Your task to perform on an android device: Open calendar and show me the third week of next month Image 0: 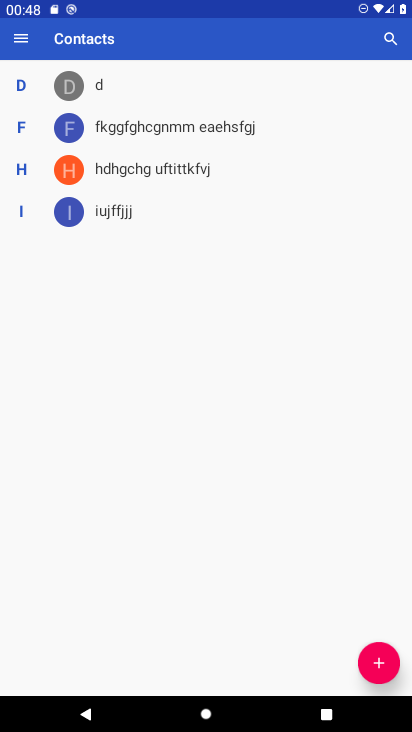
Step 0: press home button
Your task to perform on an android device: Open calendar and show me the third week of next month Image 1: 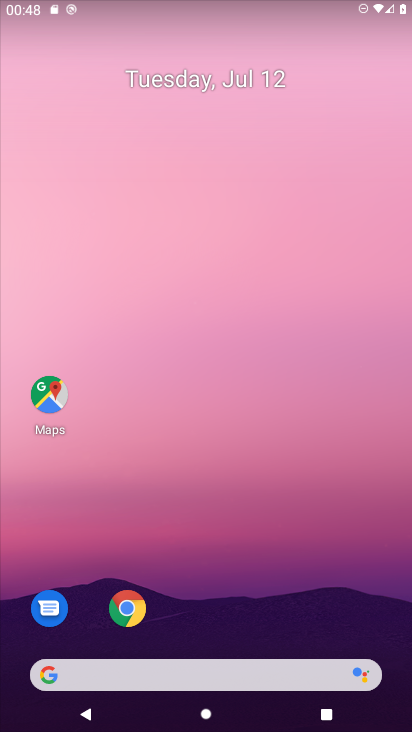
Step 1: drag from (197, 641) to (176, 82)
Your task to perform on an android device: Open calendar and show me the third week of next month Image 2: 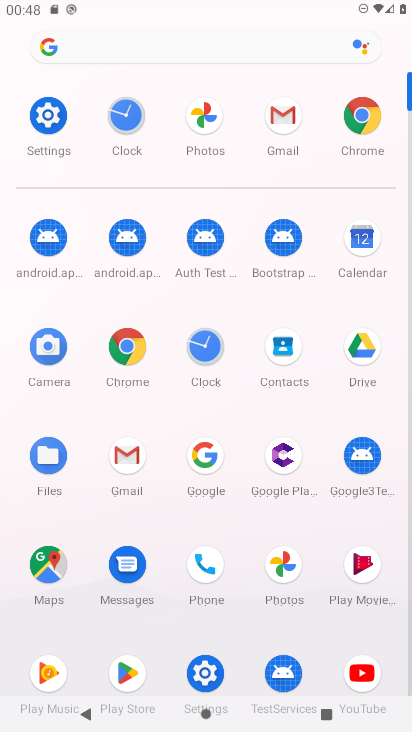
Step 2: click (363, 232)
Your task to perform on an android device: Open calendar and show me the third week of next month Image 3: 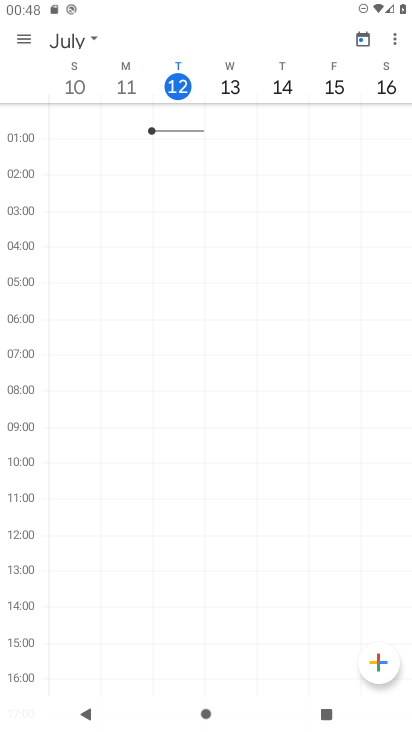
Step 3: task complete